Your task to perform on an android device: Open Google Maps and go to "Timeline" Image 0: 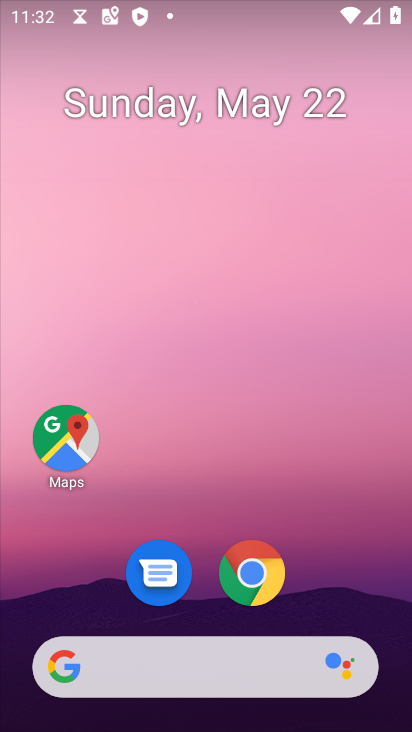
Step 0: press home button
Your task to perform on an android device: Open Google Maps and go to "Timeline" Image 1: 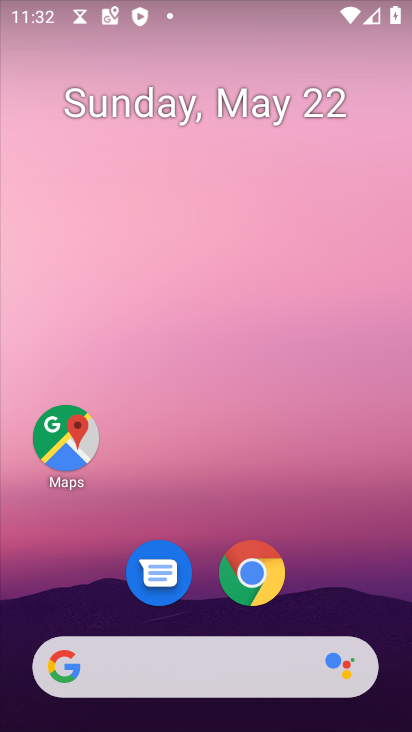
Step 1: click (65, 450)
Your task to perform on an android device: Open Google Maps and go to "Timeline" Image 2: 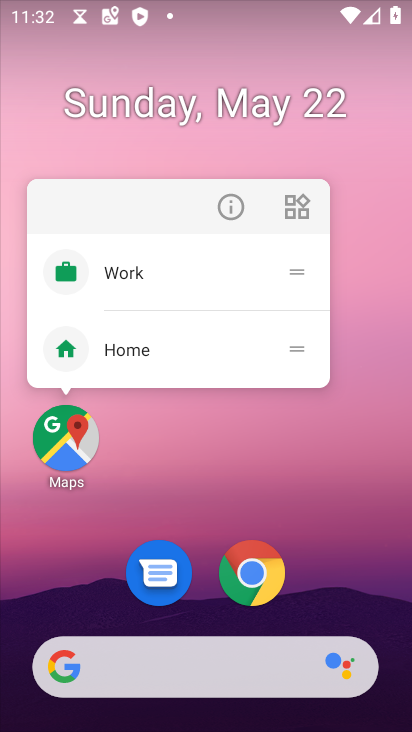
Step 2: click (65, 446)
Your task to perform on an android device: Open Google Maps and go to "Timeline" Image 3: 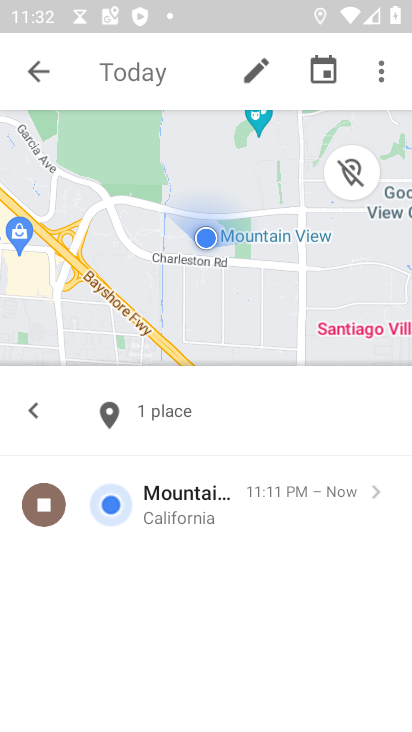
Step 3: task complete